Your task to perform on an android device: Open settings Image 0: 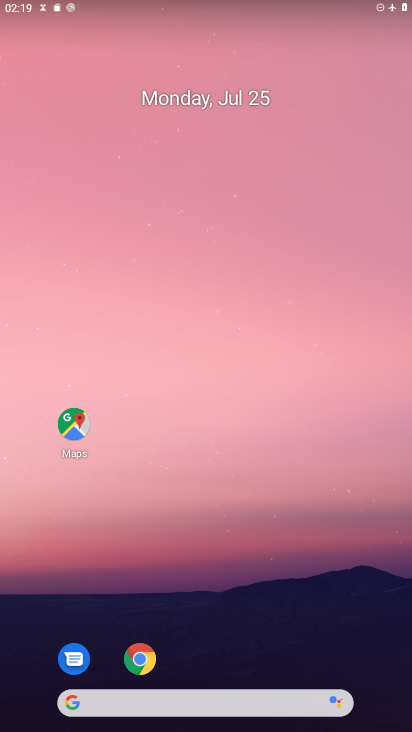
Step 0: drag from (229, 640) to (230, 57)
Your task to perform on an android device: Open settings Image 1: 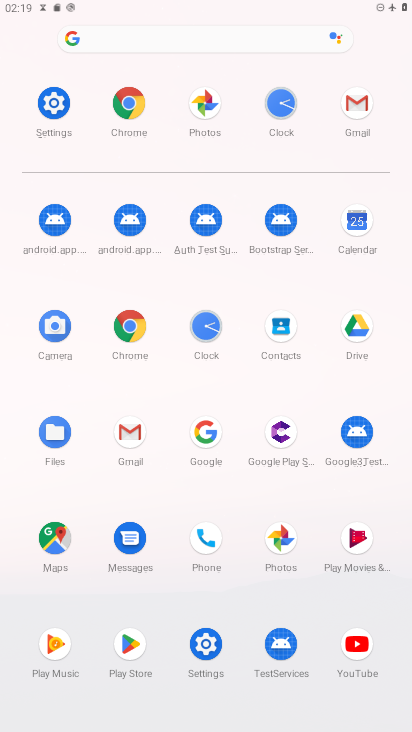
Step 1: click (46, 108)
Your task to perform on an android device: Open settings Image 2: 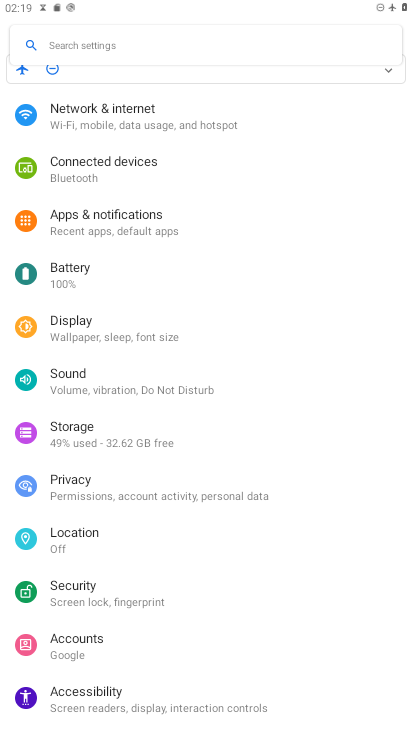
Step 2: task complete